Your task to perform on an android device: turn off location Image 0: 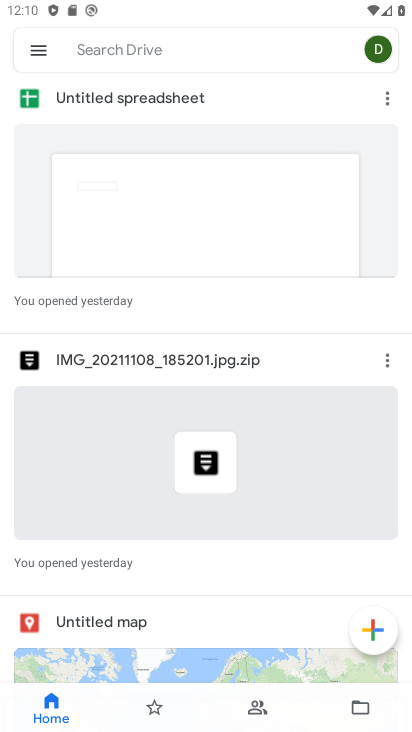
Step 0: press home button
Your task to perform on an android device: turn off location Image 1: 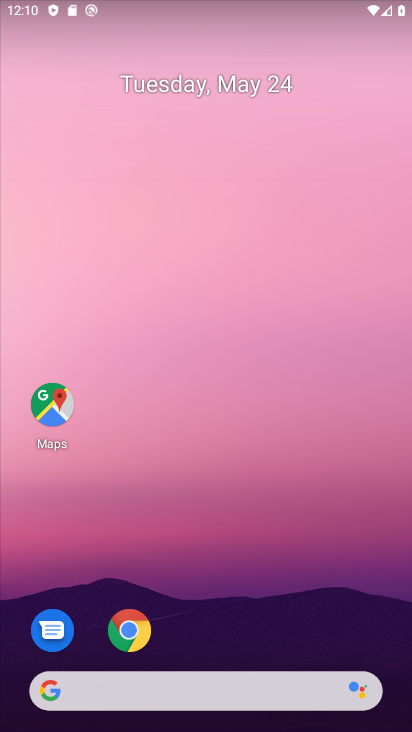
Step 1: drag from (273, 635) to (308, 288)
Your task to perform on an android device: turn off location Image 2: 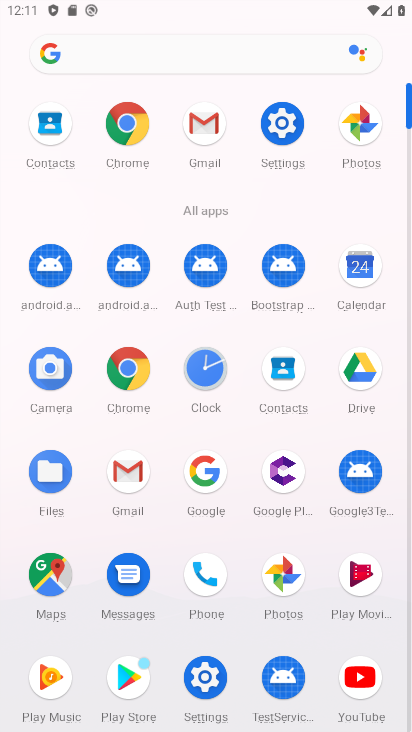
Step 2: click (300, 113)
Your task to perform on an android device: turn off location Image 3: 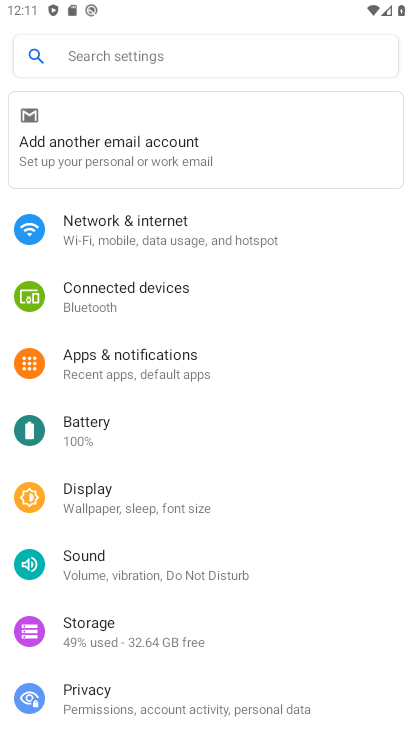
Step 3: drag from (193, 623) to (174, 449)
Your task to perform on an android device: turn off location Image 4: 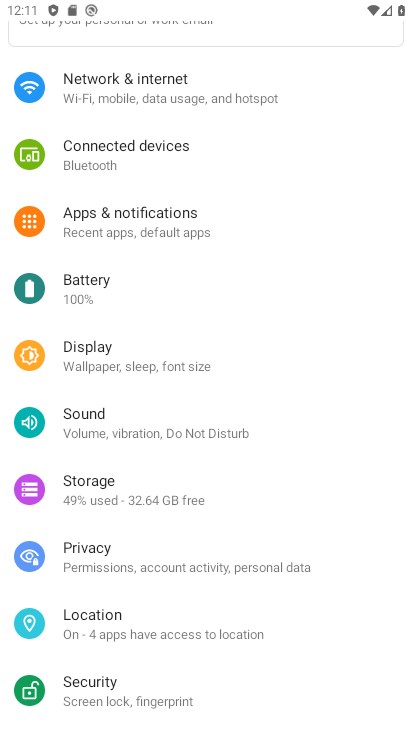
Step 4: click (93, 625)
Your task to perform on an android device: turn off location Image 5: 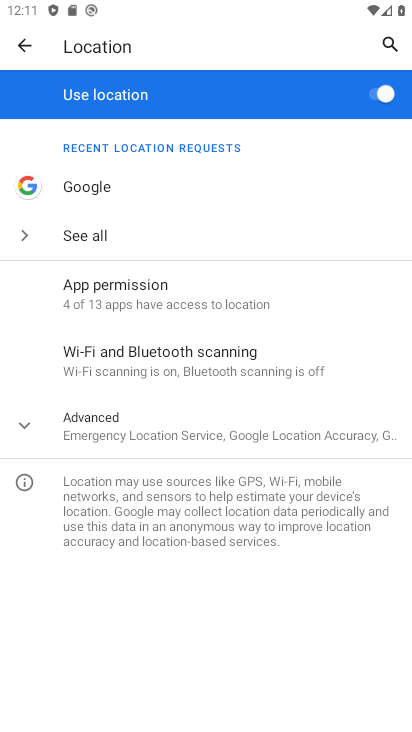
Step 5: click (375, 90)
Your task to perform on an android device: turn off location Image 6: 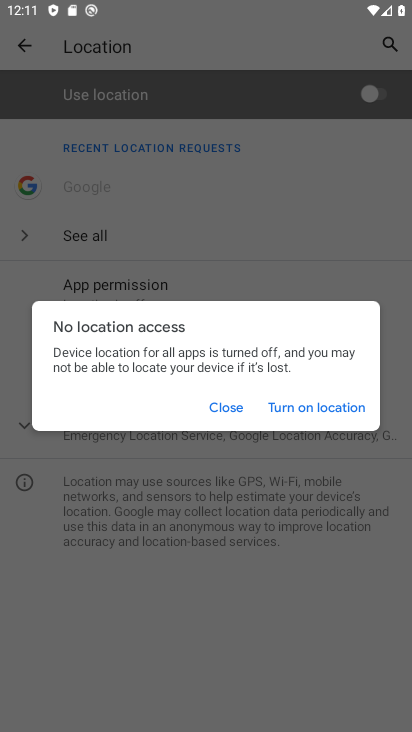
Step 6: task complete